Your task to perform on an android device: open a new tab in the chrome app Image 0: 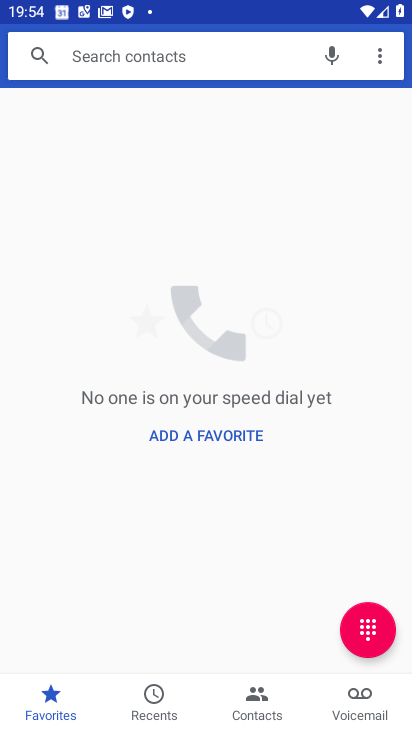
Step 0: press home button
Your task to perform on an android device: open a new tab in the chrome app Image 1: 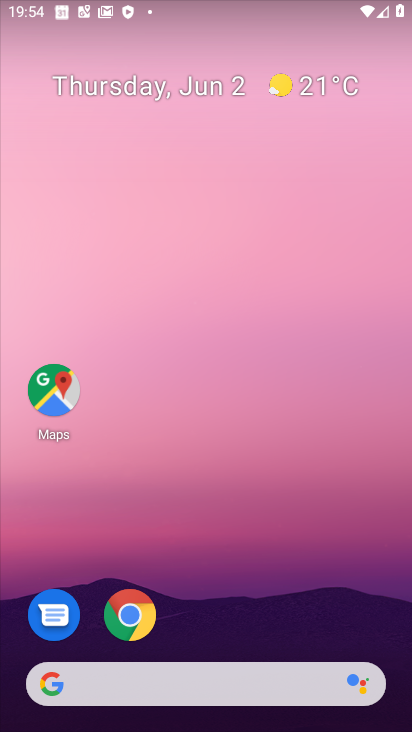
Step 1: click (135, 634)
Your task to perform on an android device: open a new tab in the chrome app Image 2: 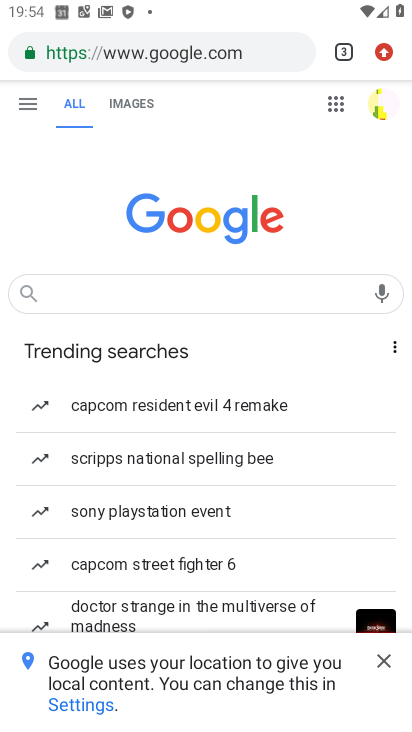
Step 2: click (340, 64)
Your task to perform on an android device: open a new tab in the chrome app Image 3: 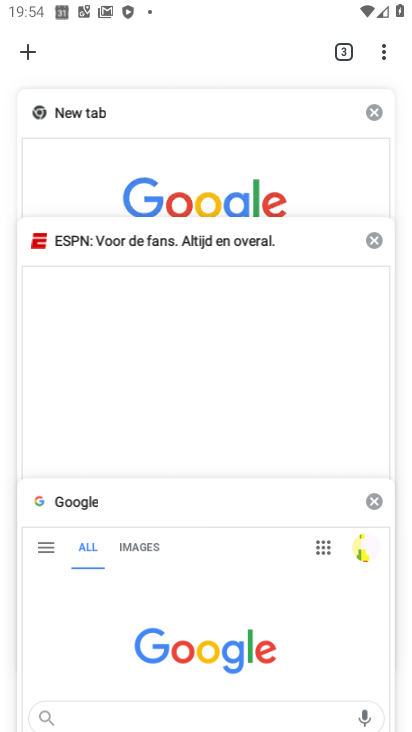
Step 3: click (41, 62)
Your task to perform on an android device: open a new tab in the chrome app Image 4: 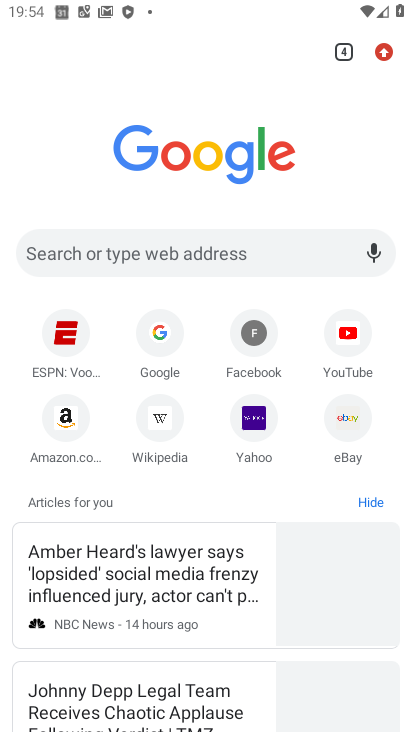
Step 4: task complete